Your task to perform on an android device: toggle pop-ups in chrome Image 0: 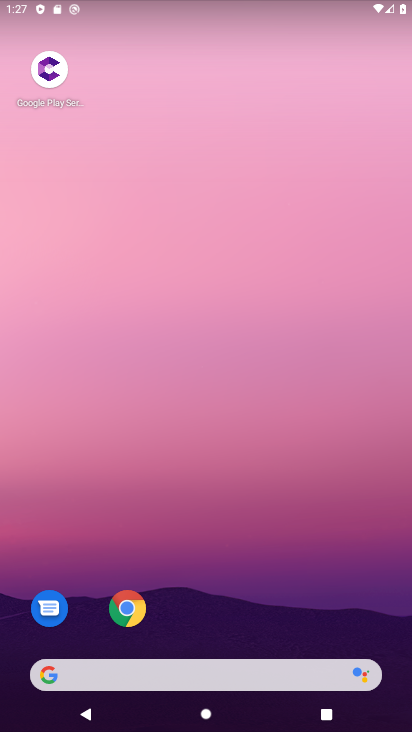
Step 0: click (115, 614)
Your task to perform on an android device: toggle pop-ups in chrome Image 1: 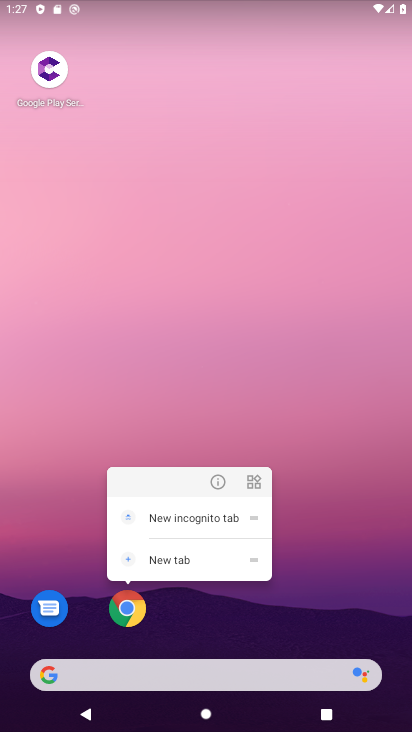
Step 1: click (130, 618)
Your task to perform on an android device: toggle pop-ups in chrome Image 2: 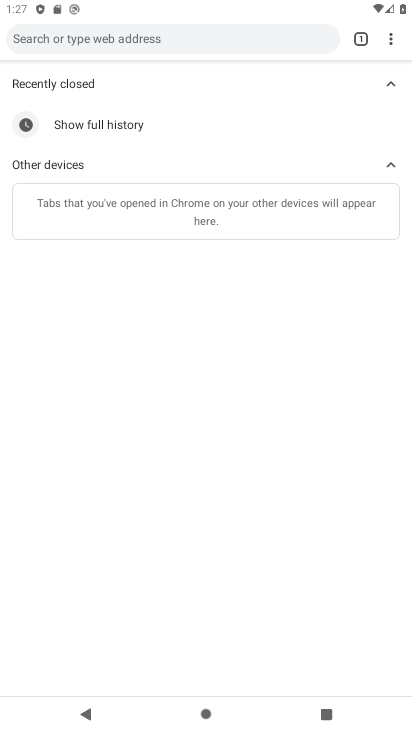
Step 2: drag from (389, 42) to (287, 325)
Your task to perform on an android device: toggle pop-ups in chrome Image 3: 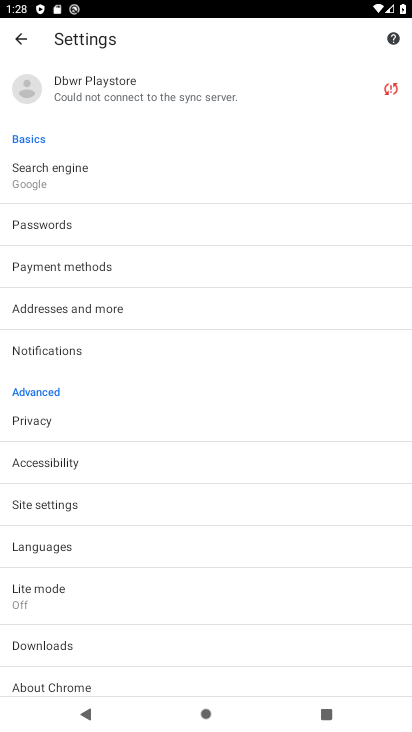
Step 3: click (103, 501)
Your task to perform on an android device: toggle pop-ups in chrome Image 4: 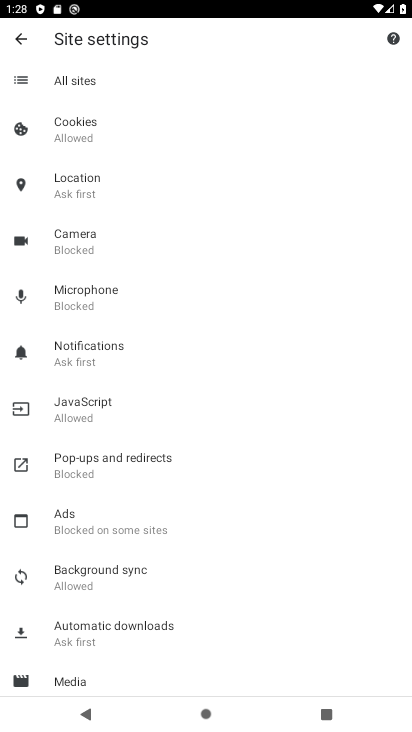
Step 4: click (142, 469)
Your task to perform on an android device: toggle pop-ups in chrome Image 5: 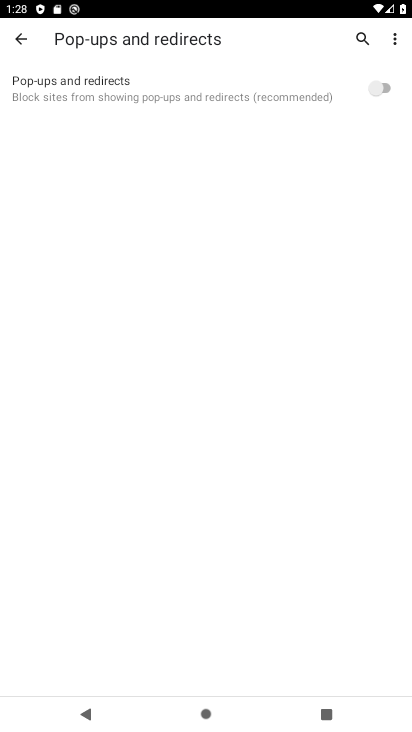
Step 5: click (386, 85)
Your task to perform on an android device: toggle pop-ups in chrome Image 6: 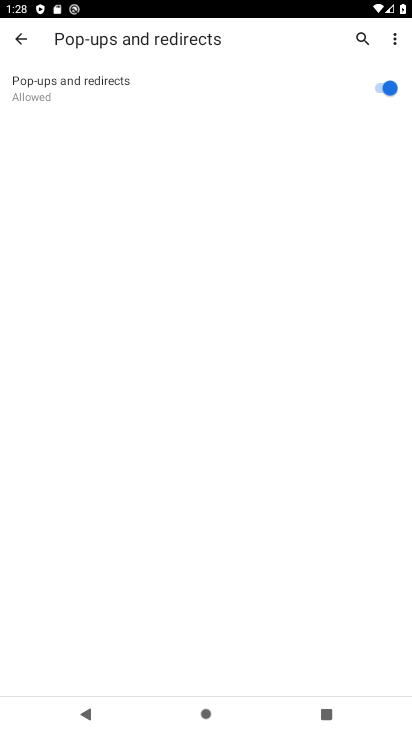
Step 6: task complete